Your task to perform on an android device: Open Yahoo.com Image 0: 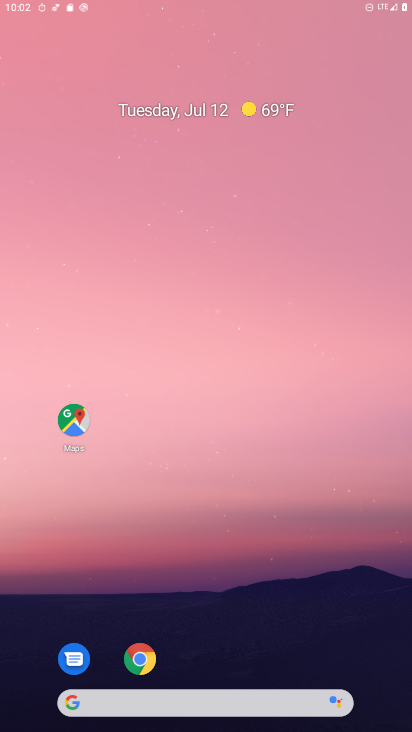
Step 0: drag from (236, 601) to (236, 107)
Your task to perform on an android device: Open Yahoo.com Image 1: 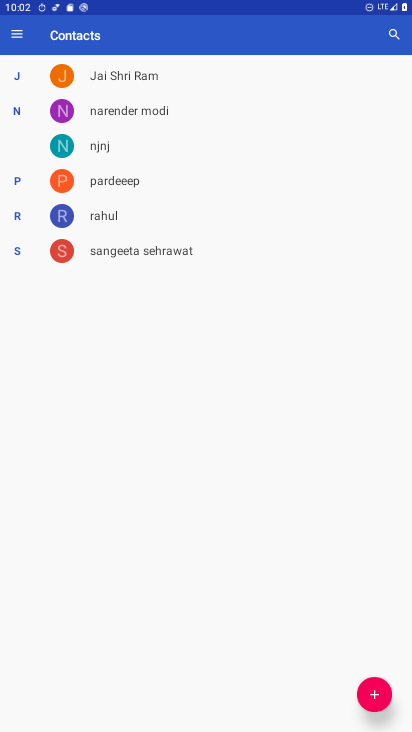
Step 1: press home button
Your task to perform on an android device: Open Yahoo.com Image 2: 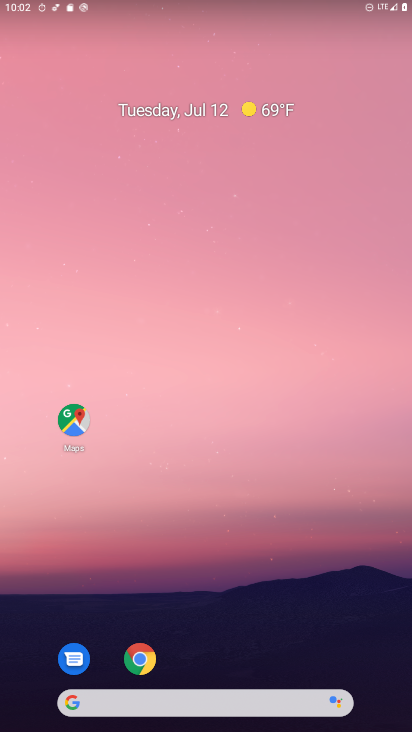
Step 2: click (136, 664)
Your task to perform on an android device: Open Yahoo.com Image 3: 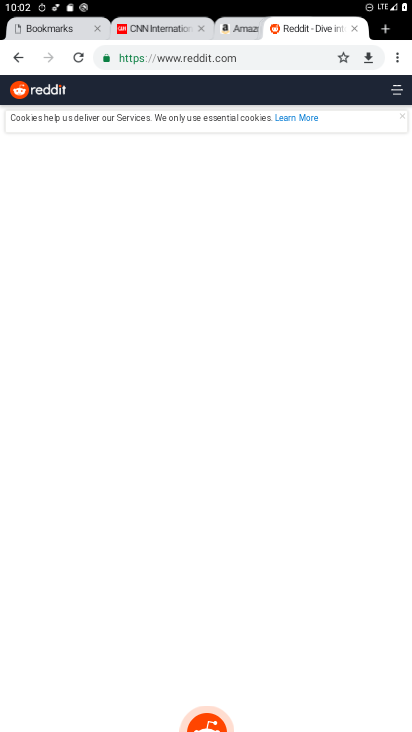
Step 3: click (398, 62)
Your task to perform on an android device: Open Yahoo.com Image 4: 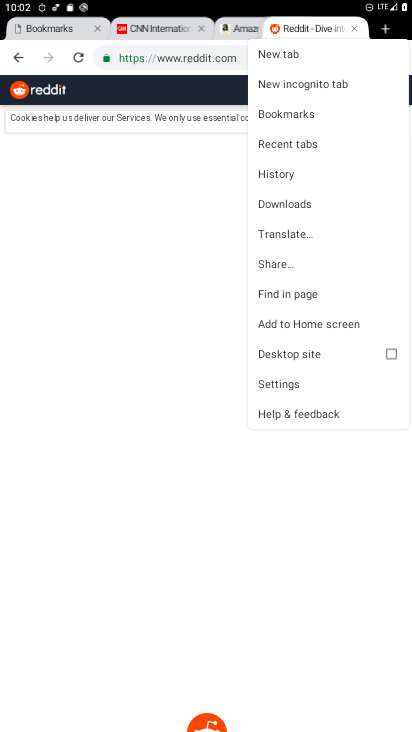
Step 4: click (276, 51)
Your task to perform on an android device: Open Yahoo.com Image 5: 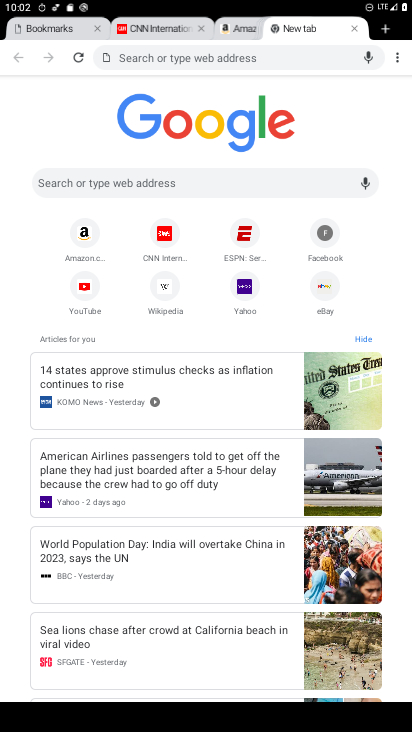
Step 5: click (244, 286)
Your task to perform on an android device: Open Yahoo.com Image 6: 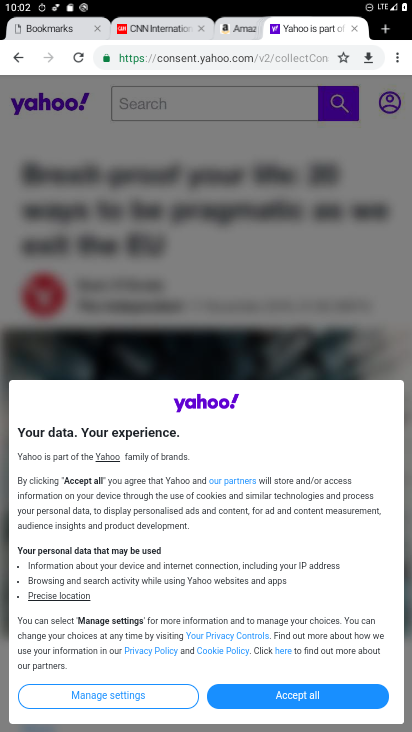
Step 6: task complete